Your task to perform on an android device: add a label to a message in the gmail app Image 0: 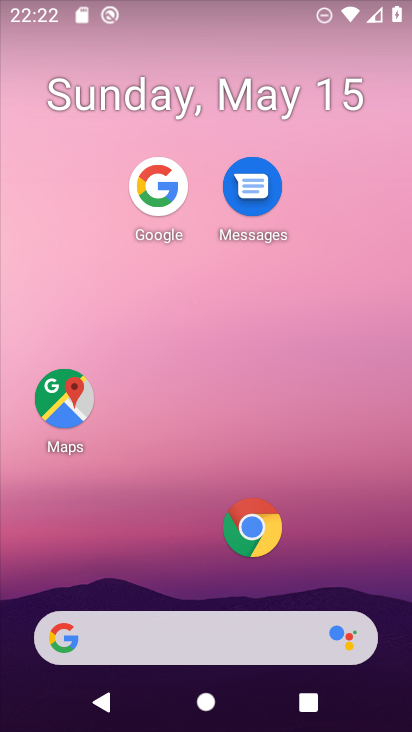
Step 0: press home button
Your task to perform on an android device: add a label to a message in the gmail app Image 1: 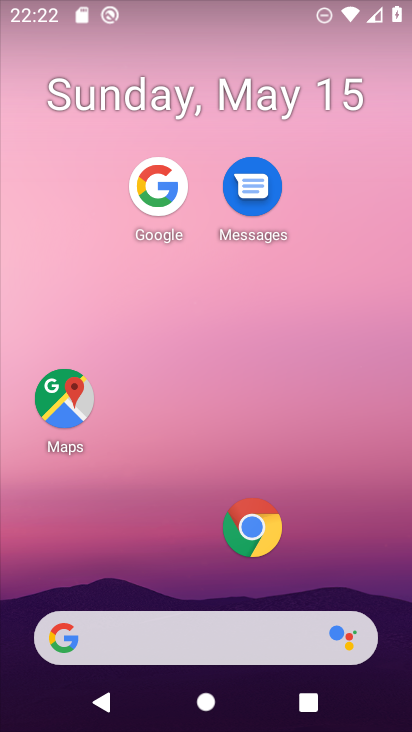
Step 1: drag from (207, 632) to (344, 160)
Your task to perform on an android device: add a label to a message in the gmail app Image 2: 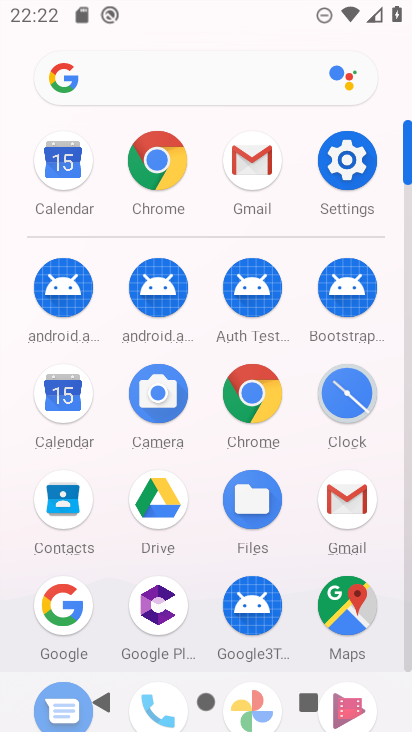
Step 2: click (248, 170)
Your task to perform on an android device: add a label to a message in the gmail app Image 3: 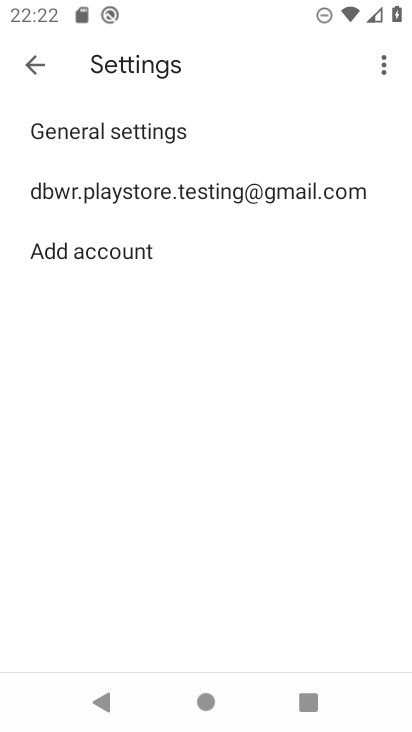
Step 3: click (31, 69)
Your task to perform on an android device: add a label to a message in the gmail app Image 4: 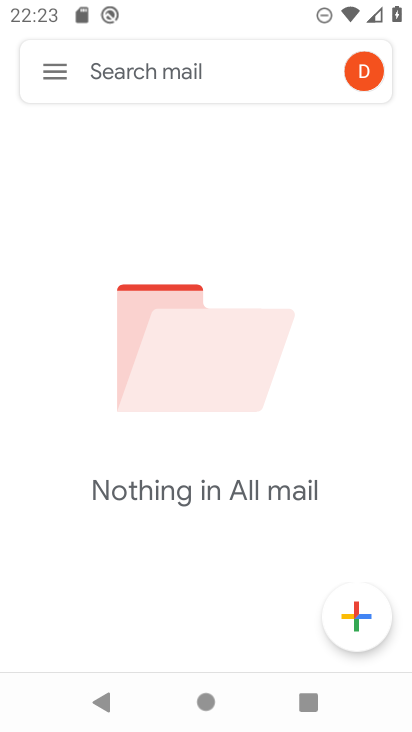
Step 4: task complete